Your task to perform on an android device: Open Youtube and go to "Your channel" Image 0: 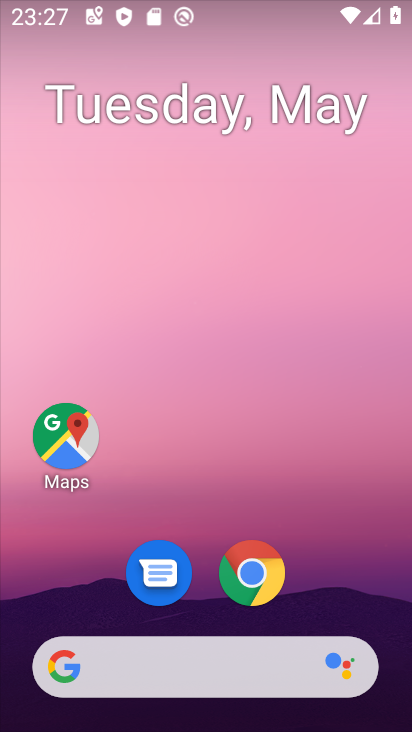
Step 0: drag from (327, 484) to (326, 294)
Your task to perform on an android device: Open Youtube and go to "Your channel" Image 1: 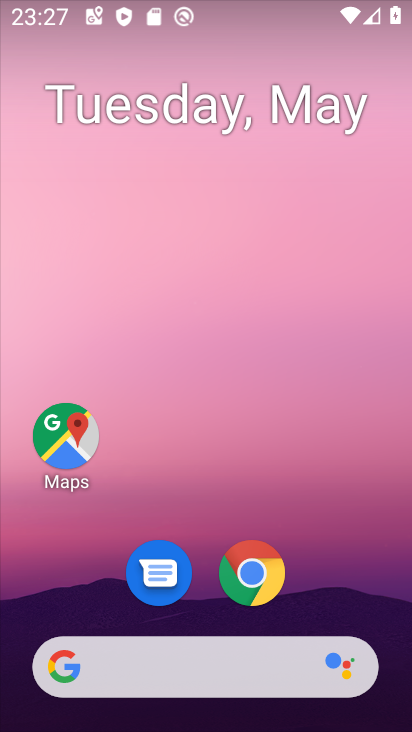
Step 1: drag from (302, 636) to (355, 263)
Your task to perform on an android device: Open Youtube and go to "Your channel" Image 2: 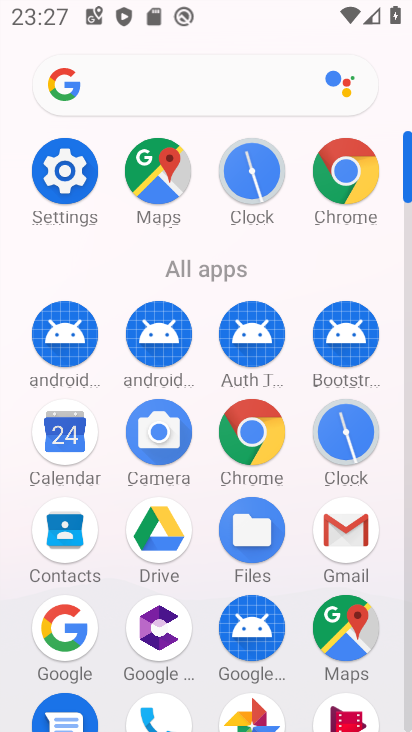
Step 2: drag from (300, 577) to (294, 244)
Your task to perform on an android device: Open Youtube and go to "Your channel" Image 3: 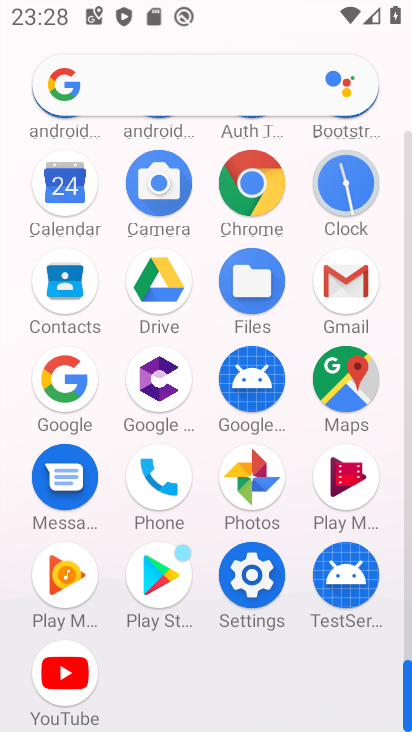
Step 3: click (49, 669)
Your task to perform on an android device: Open Youtube and go to "Your channel" Image 4: 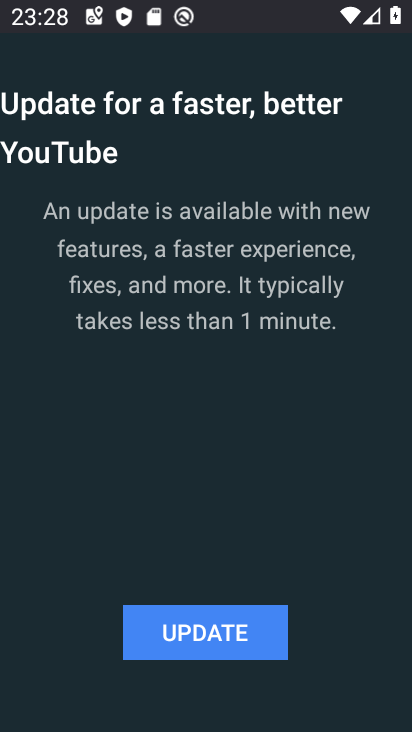
Step 4: task complete